Your task to perform on an android device: turn on improve location accuracy Image 0: 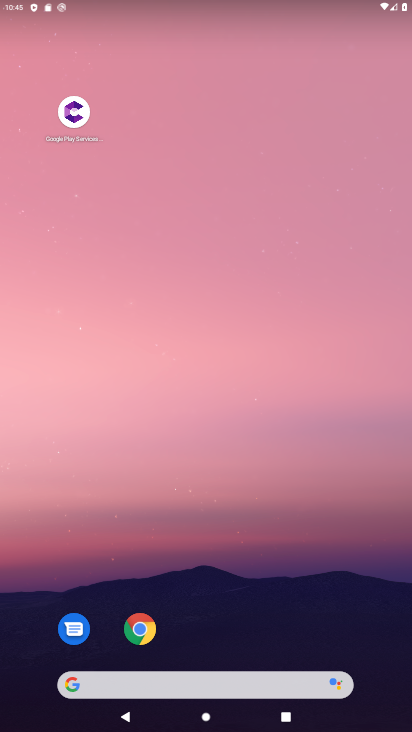
Step 0: drag from (261, 630) to (263, 17)
Your task to perform on an android device: turn on improve location accuracy Image 1: 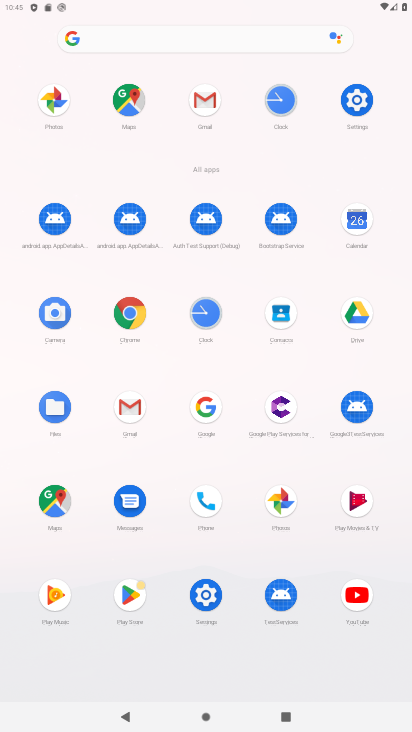
Step 1: click (201, 594)
Your task to perform on an android device: turn on improve location accuracy Image 2: 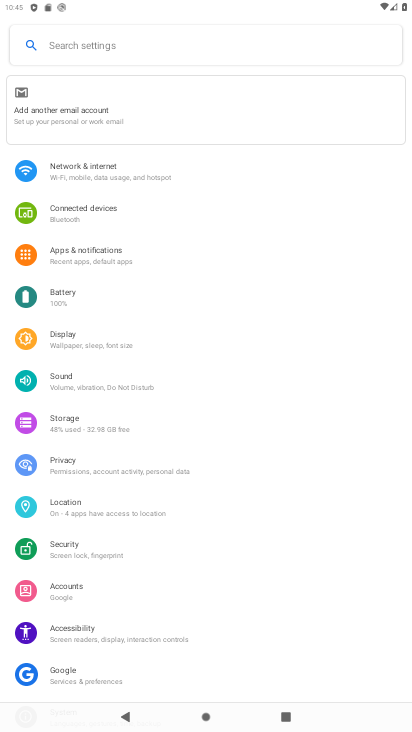
Step 2: drag from (80, 546) to (72, 213)
Your task to perform on an android device: turn on improve location accuracy Image 3: 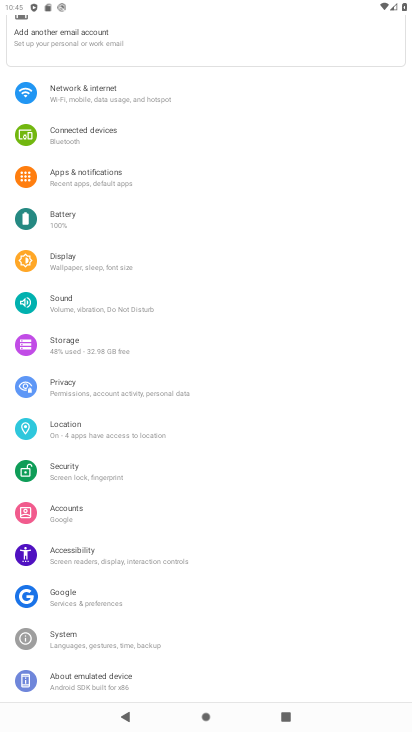
Step 3: drag from (190, 123) to (253, 508)
Your task to perform on an android device: turn on improve location accuracy Image 4: 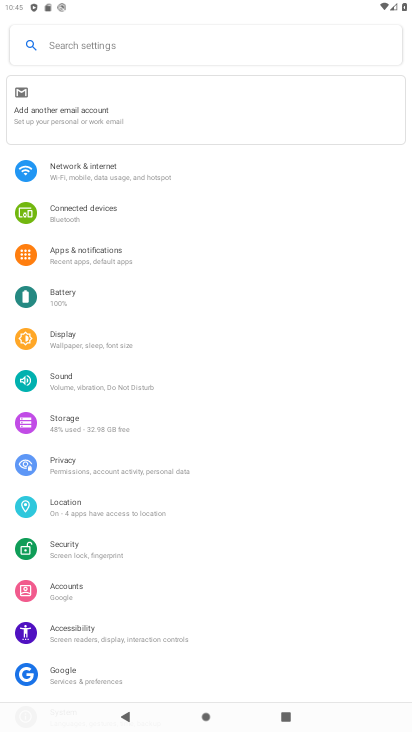
Step 4: click (22, 501)
Your task to perform on an android device: turn on improve location accuracy Image 5: 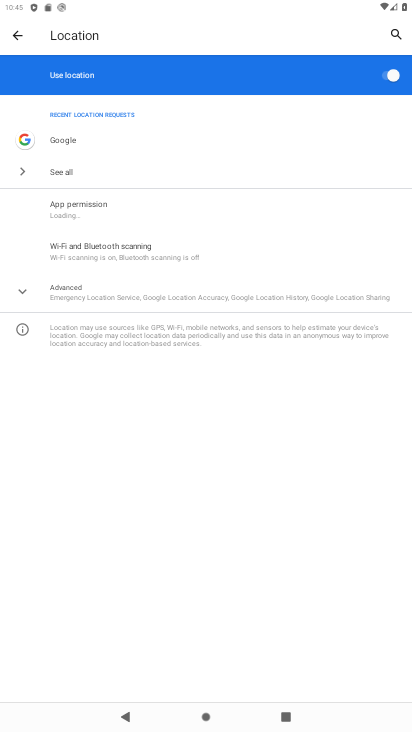
Step 5: click (113, 290)
Your task to perform on an android device: turn on improve location accuracy Image 6: 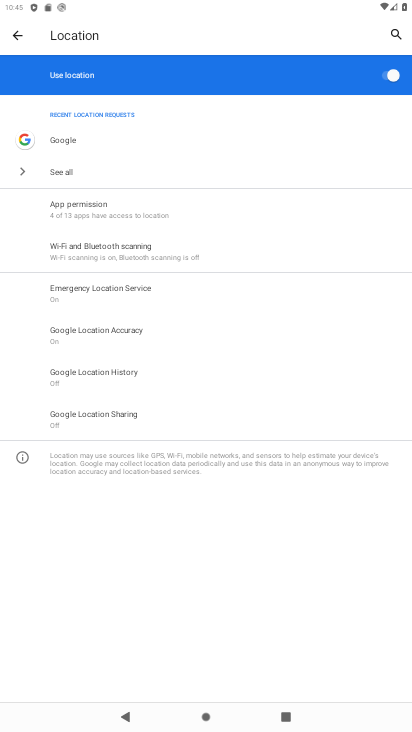
Step 6: click (119, 326)
Your task to perform on an android device: turn on improve location accuracy Image 7: 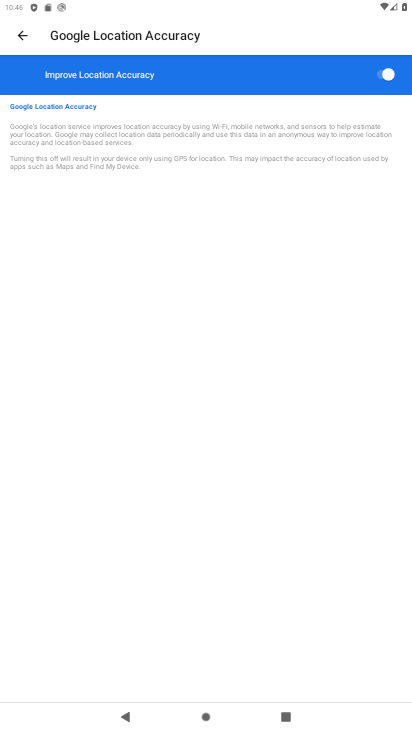
Step 7: task complete